Your task to perform on an android device: Open the web browser Image 0: 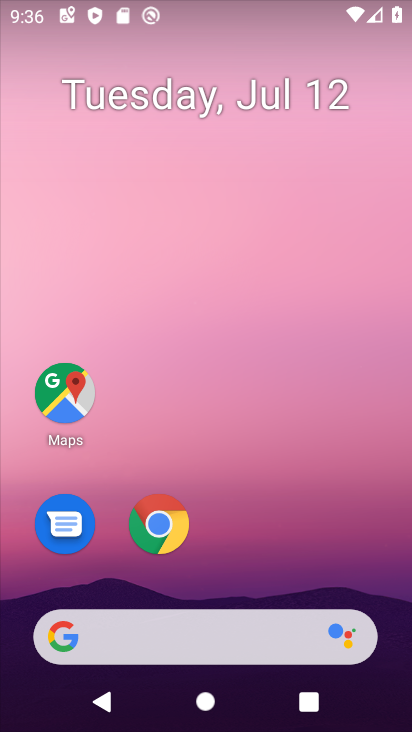
Step 0: drag from (274, 550) to (247, 31)
Your task to perform on an android device: Open the web browser Image 1: 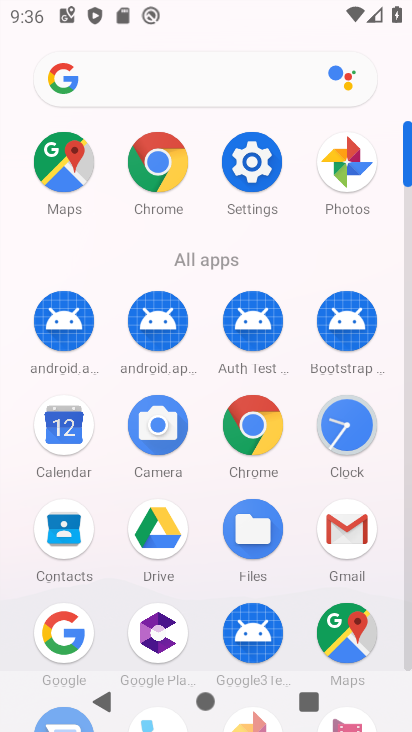
Step 1: click (162, 159)
Your task to perform on an android device: Open the web browser Image 2: 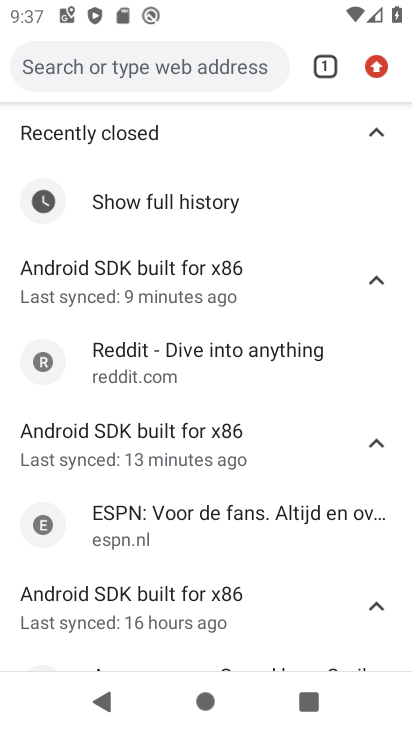
Step 2: click (207, 70)
Your task to perform on an android device: Open the web browser Image 3: 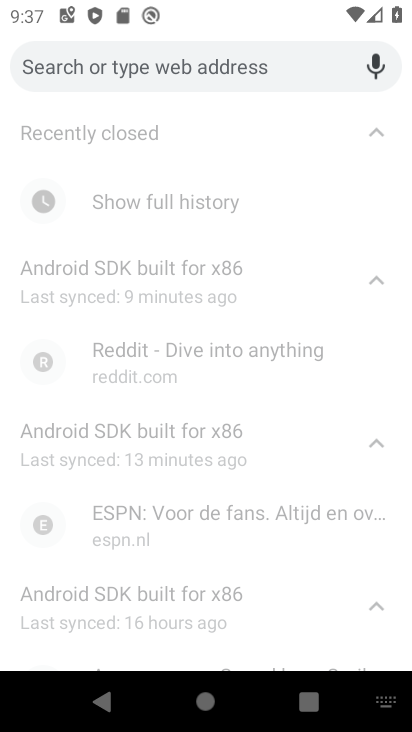
Step 3: task complete